Your task to perform on an android device: Do I have any events this weekend? Image 0: 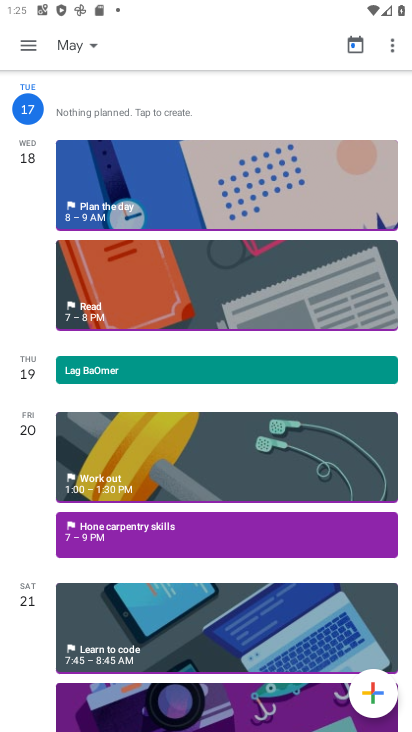
Step 0: drag from (242, 550) to (283, 269)
Your task to perform on an android device: Do I have any events this weekend? Image 1: 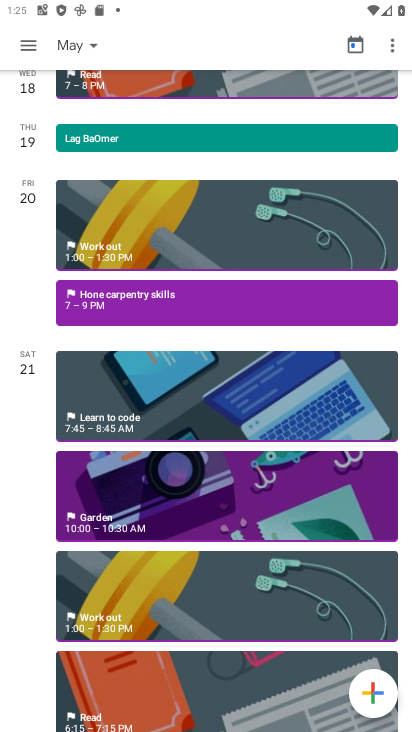
Step 1: task complete